Your task to perform on an android device: open chrome privacy settings Image 0: 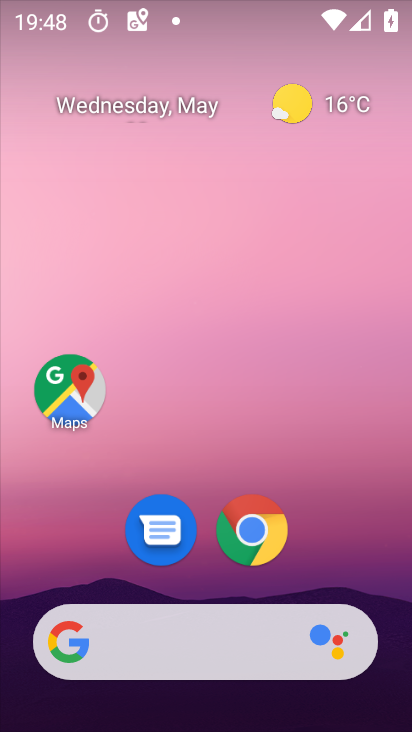
Step 0: click (250, 532)
Your task to perform on an android device: open chrome privacy settings Image 1: 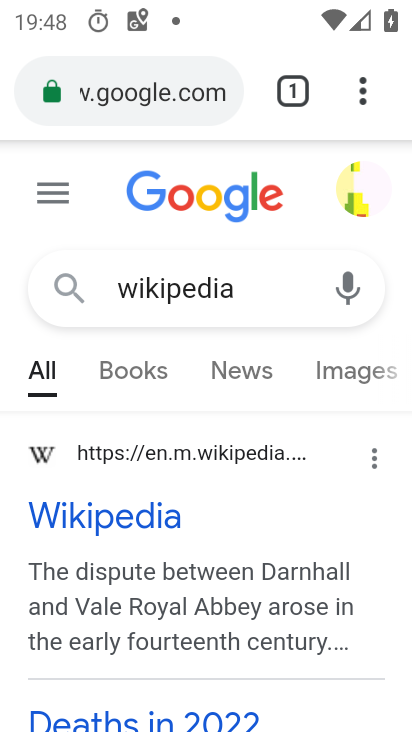
Step 1: click (362, 103)
Your task to perform on an android device: open chrome privacy settings Image 2: 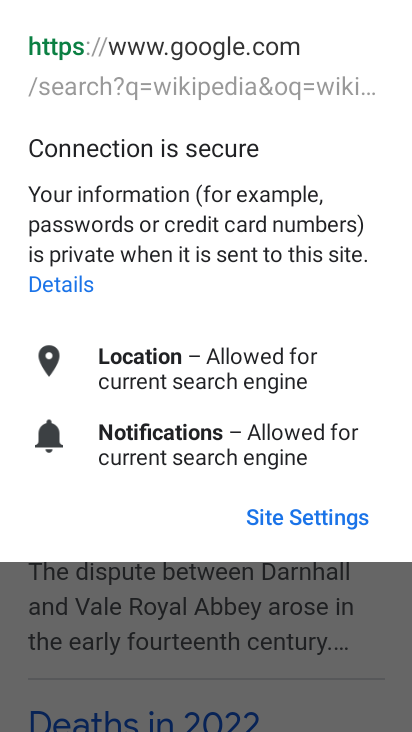
Step 2: click (42, 665)
Your task to perform on an android device: open chrome privacy settings Image 3: 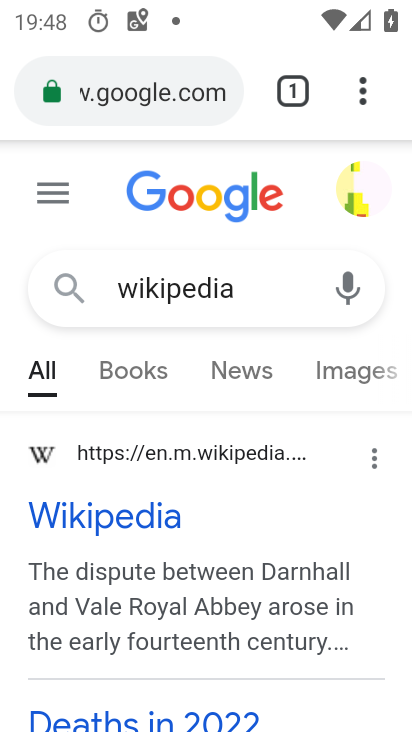
Step 3: click (364, 90)
Your task to perform on an android device: open chrome privacy settings Image 4: 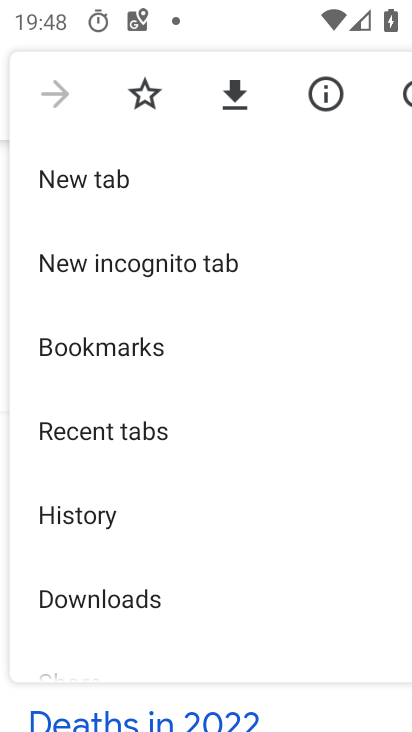
Step 4: drag from (134, 525) to (154, 147)
Your task to perform on an android device: open chrome privacy settings Image 5: 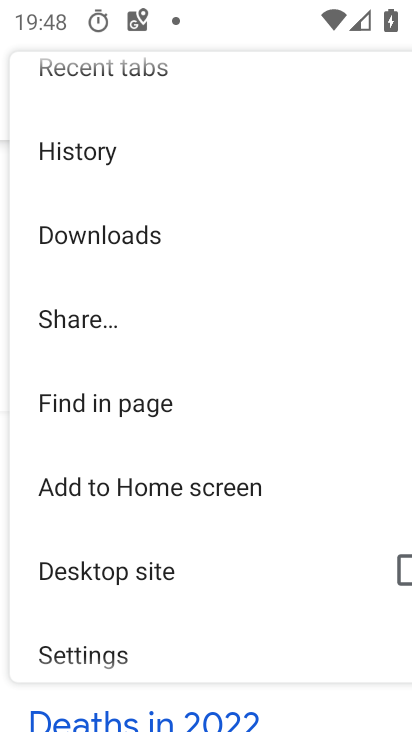
Step 5: click (96, 654)
Your task to perform on an android device: open chrome privacy settings Image 6: 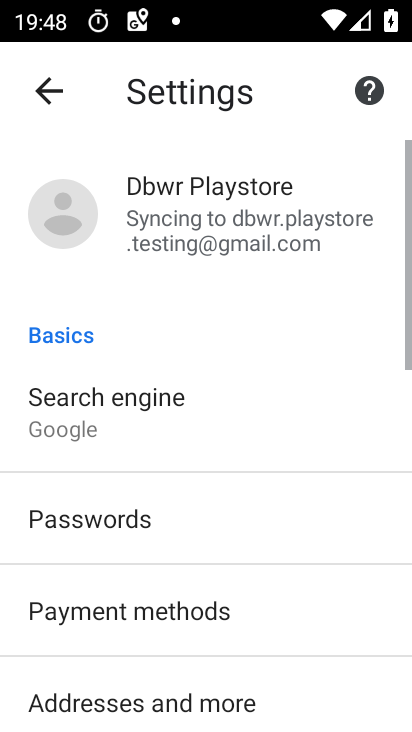
Step 6: drag from (57, 614) to (123, 236)
Your task to perform on an android device: open chrome privacy settings Image 7: 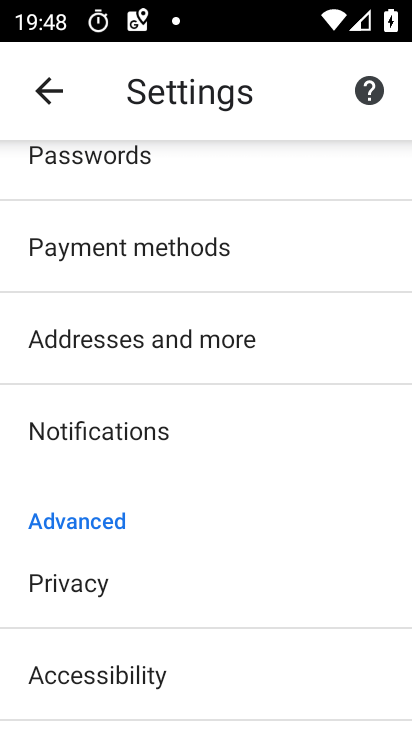
Step 7: click (106, 591)
Your task to perform on an android device: open chrome privacy settings Image 8: 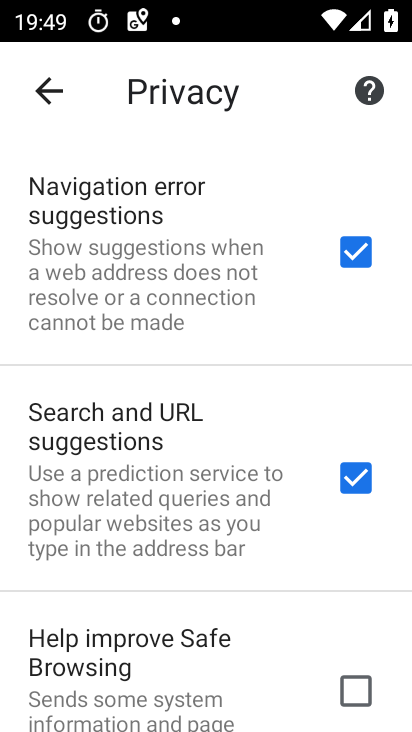
Step 8: task complete